Your task to perform on an android device: Go to internet settings Image 0: 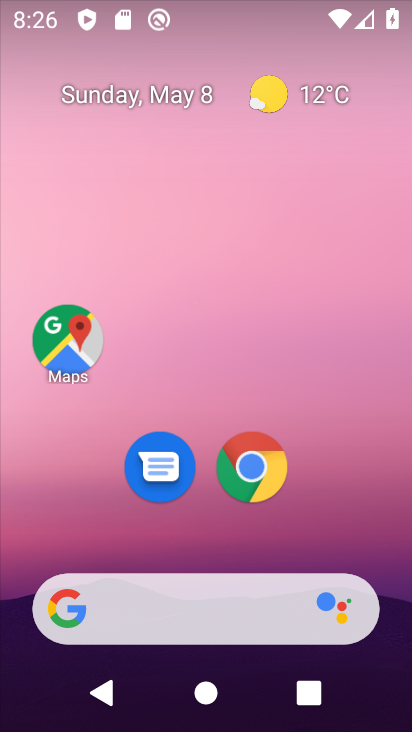
Step 0: drag from (221, 497) to (318, 19)
Your task to perform on an android device: Go to internet settings Image 1: 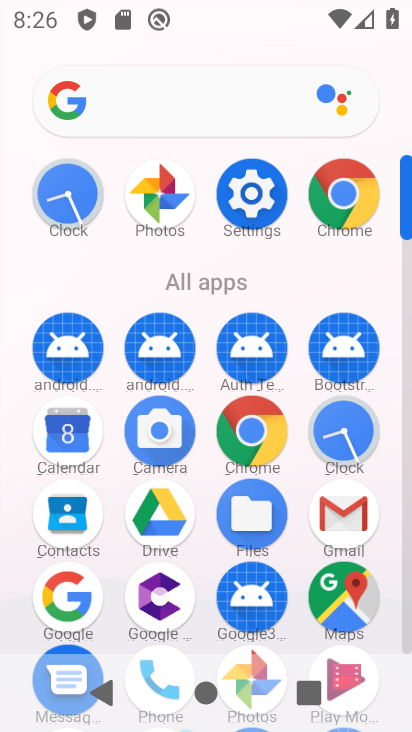
Step 1: click (261, 183)
Your task to perform on an android device: Go to internet settings Image 2: 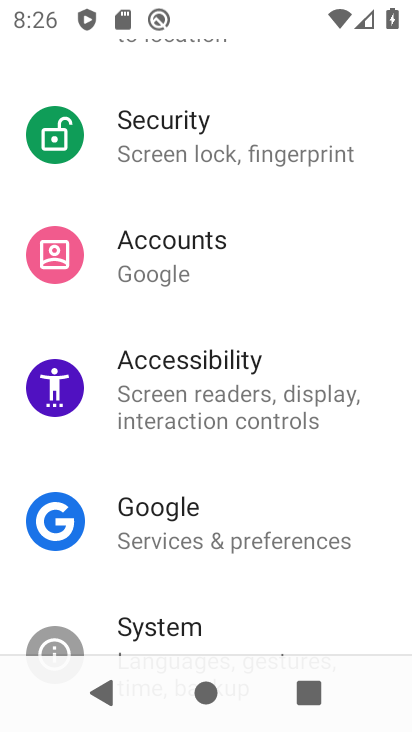
Step 2: drag from (254, 136) to (198, 647)
Your task to perform on an android device: Go to internet settings Image 3: 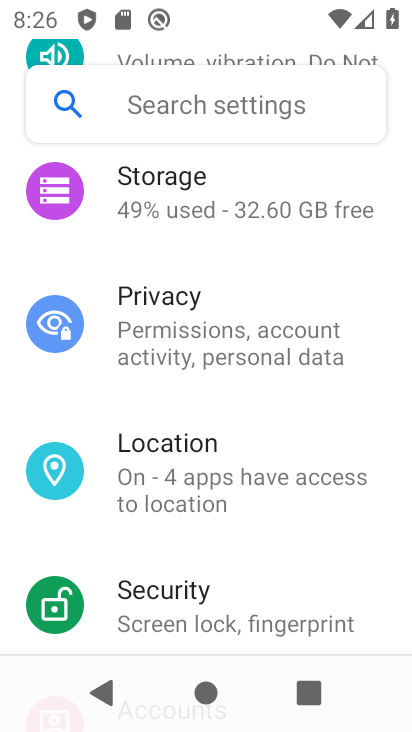
Step 3: drag from (226, 250) to (208, 555)
Your task to perform on an android device: Go to internet settings Image 4: 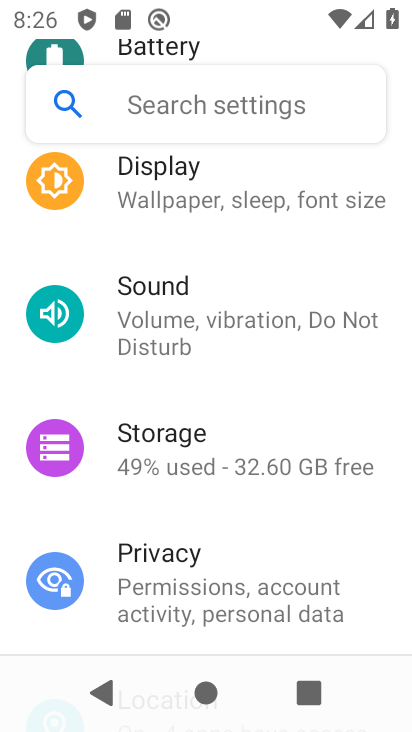
Step 4: drag from (228, 168) to (190, 543)
Your task to perform on an android device: Go to internet settings Image 5: 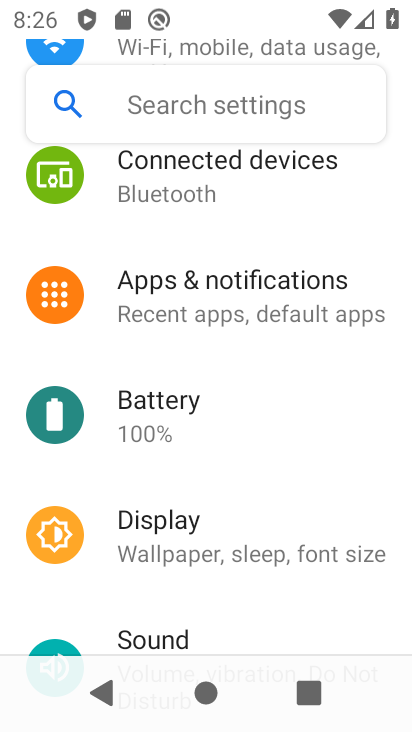
Step 5: drag from (227, 232) to (180, 595)
Your task to perform on an android device: Go to internet settings Image 6: 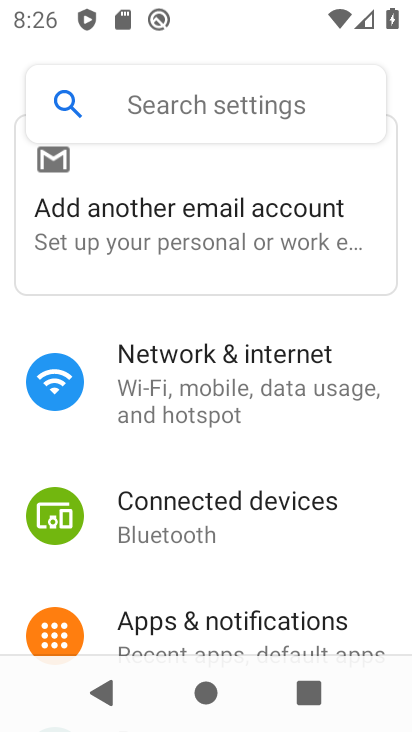
Step 6: click (212, 434)
Your task to perform on an android device: Go to internet settings Image 7: 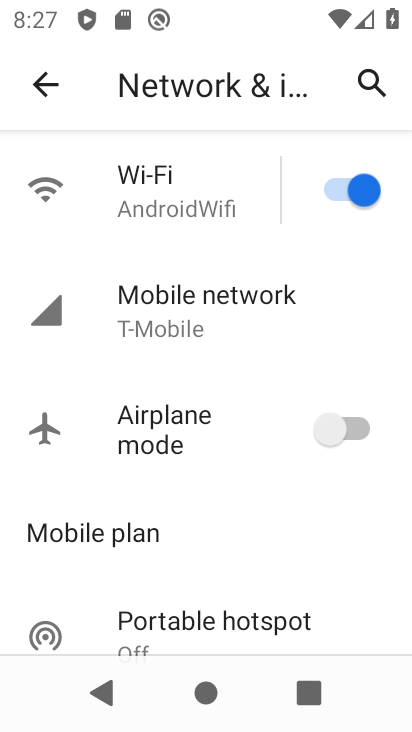
Step 7: task complete